Your task to perform on an android device: show emergency info Image 0: 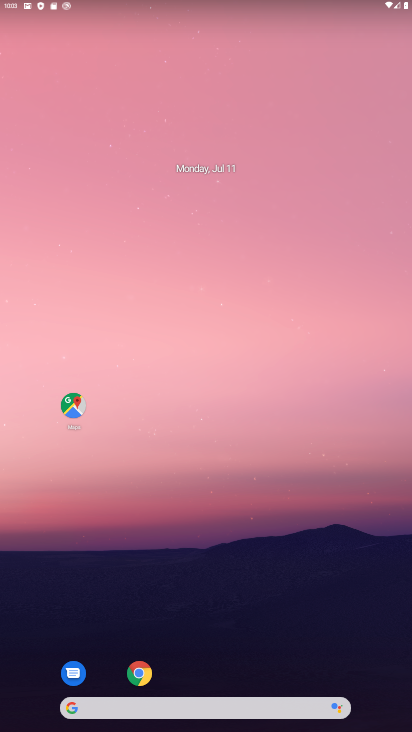
Step 0: drag from (253, 632) to (285, 158)
Your task to perform on an android device: show emergency info Image 1: 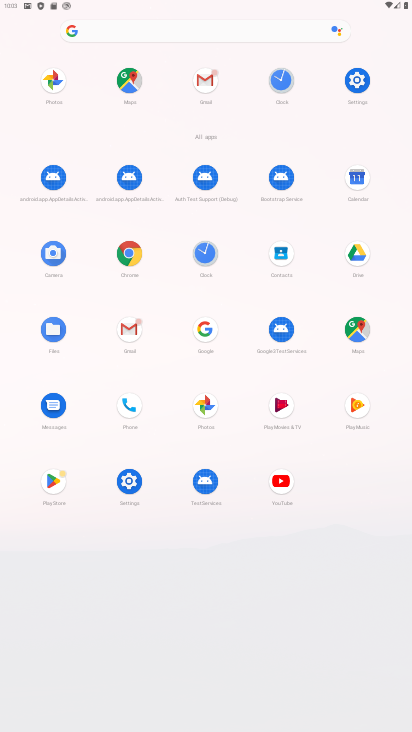
Step 1: click (349, 74)
Your task to perform on an android device: show emergency info Image 2: 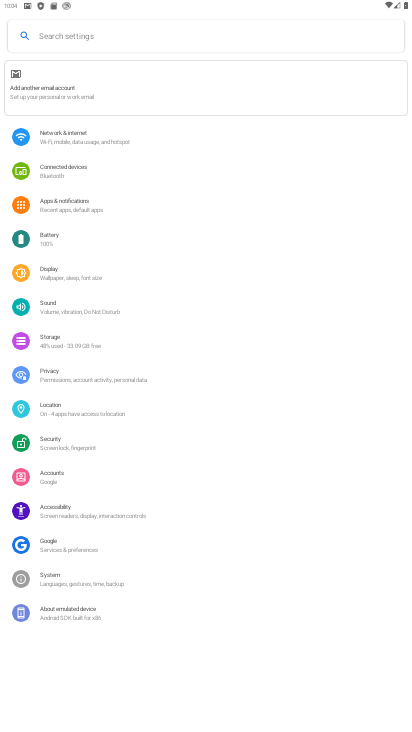
Step 2: click (68, 614)
Your task to perform on an android device: show emergency info Image 3: 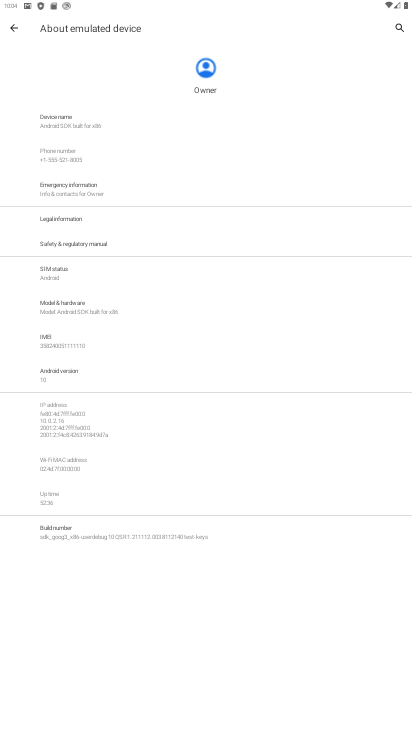
Step 3: click (89, 180)
Your task to perform on an android device: show emergency info Image 4: 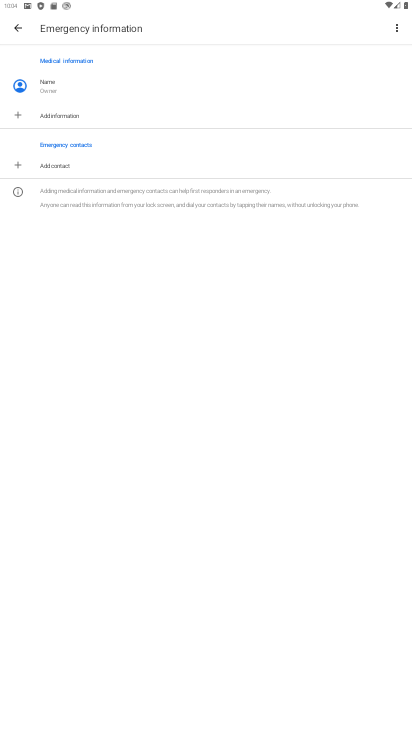
Step 4: task complete